Your task to perform on an android device: Set the phone to "Do not disturb". Image 0: 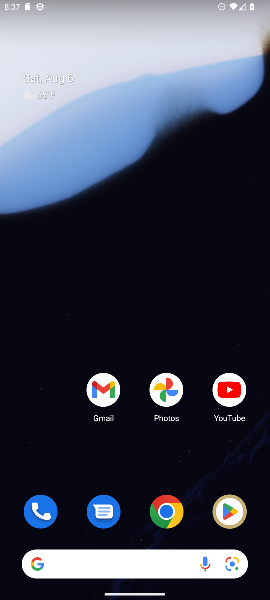
Step 0: drag from (208, 0) to (131, 162)
Your task to perform on an android device: Set the phone to "Do not disturb". Image 1: 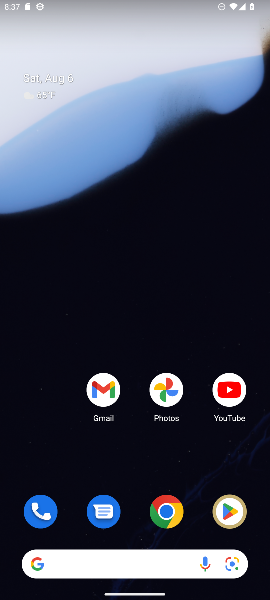
Step 1: task complete